Your task to perform on an android device: change your default location settings in chrome Image 0: 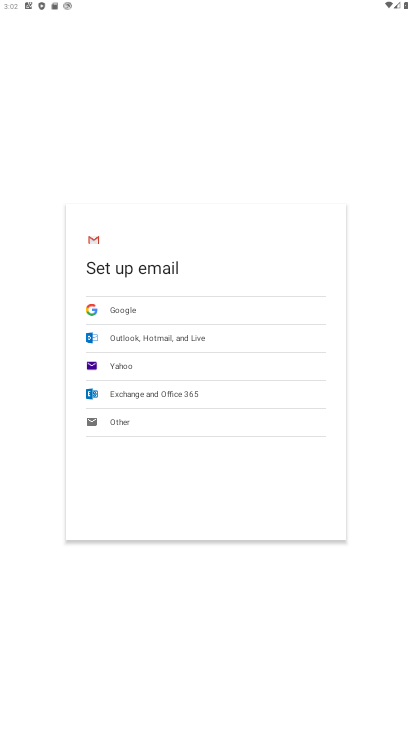
Step 0: press home button
Your task to perform on an android device: change your default location settings in chrome Image 1: 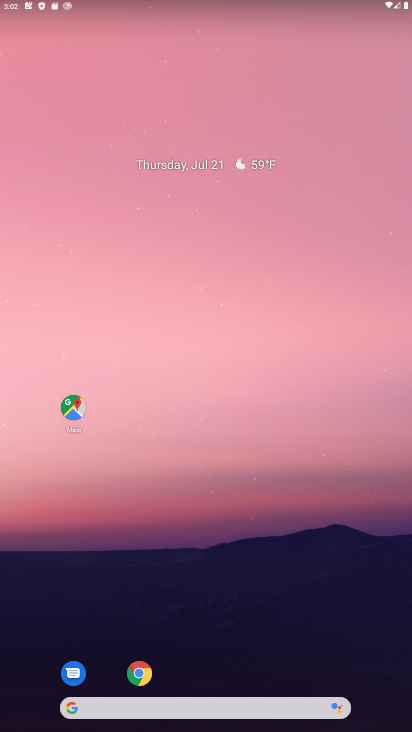
Step 1: drag from (233, 655) to (198, 200)
Your task to perform on an android device: change your default location settings in chrome Image 2: 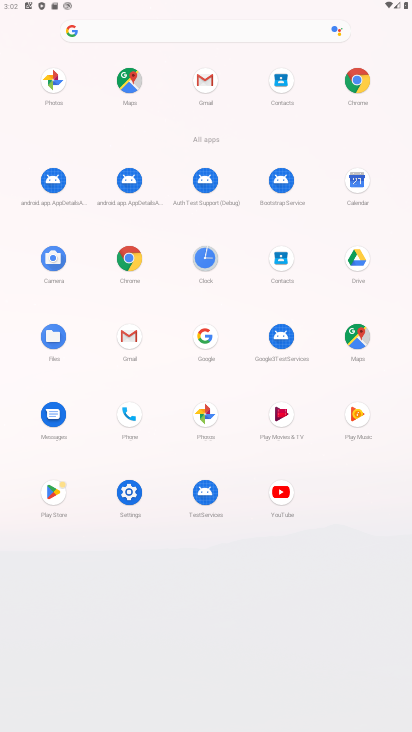
Step 2: click (347, 65)
Your task to perform on an android device: change your default location settings in chrome Image 3: 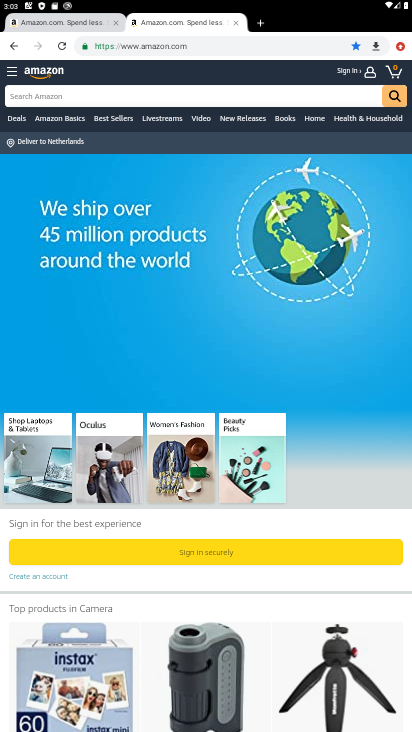
Step 3: click (406, 45)
Your task to perform on an android device: change your default location settings in chrome Image 4: 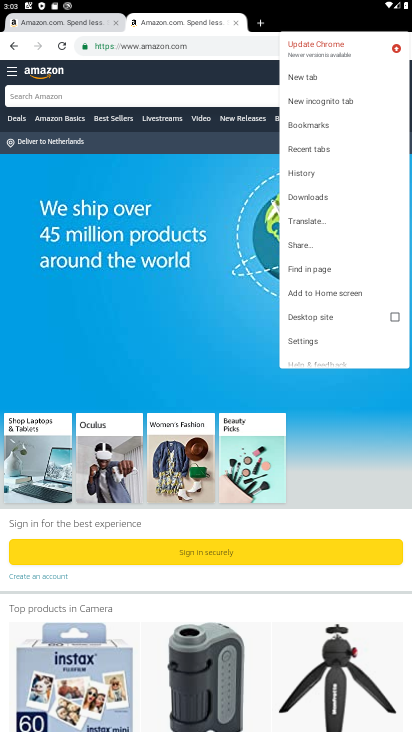
Step 4: click (325, 343)
Your task to perform on an android device: change your default location settings in chrome Image 5: 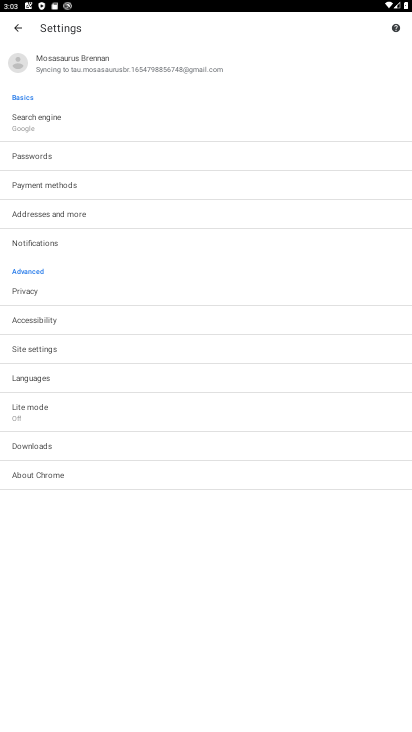
Step 5: click (143, 114)
Your task to perform on an android device: change your default location settings in chrome Image 6: 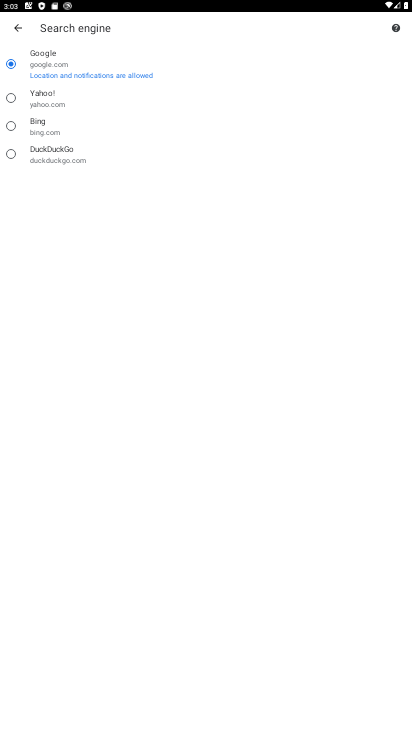
Step 6: click (18, 26)
Your task to perform on an android device: change your default location settings in chrome Image 7: 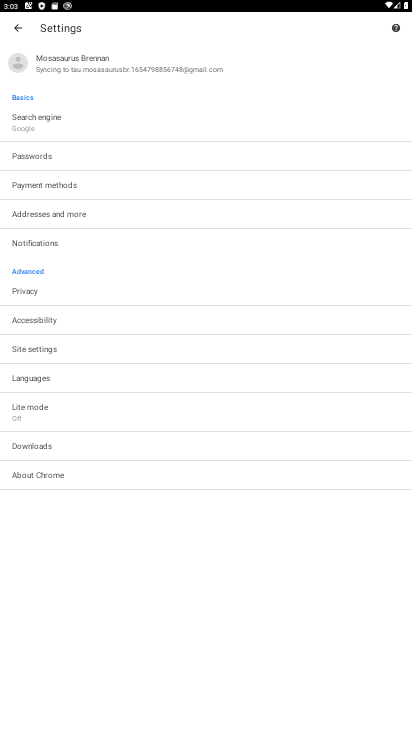
Step 7: click (68, 335)
Your task to perform on an android device: change your default location settings in chrome Image 8: 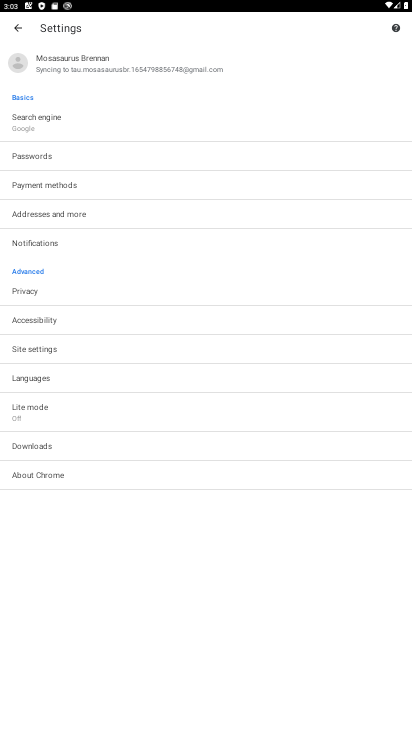
Step 8: click (60, 345)
Your task to perform on an android device: change your default location settings in chrome Image 9: 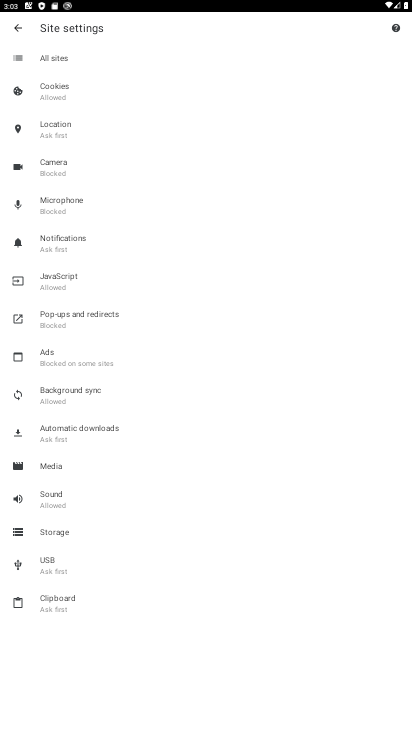
Step 9: click (148, 123)
Your task to perform on an android device: change your default location settings in chrome Image 10: 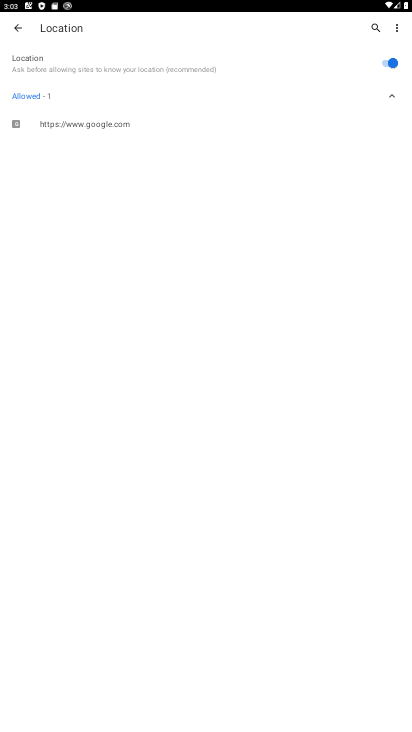
Step 10: task complete